Your task to perform on an android device: Go to location settings Image 0: 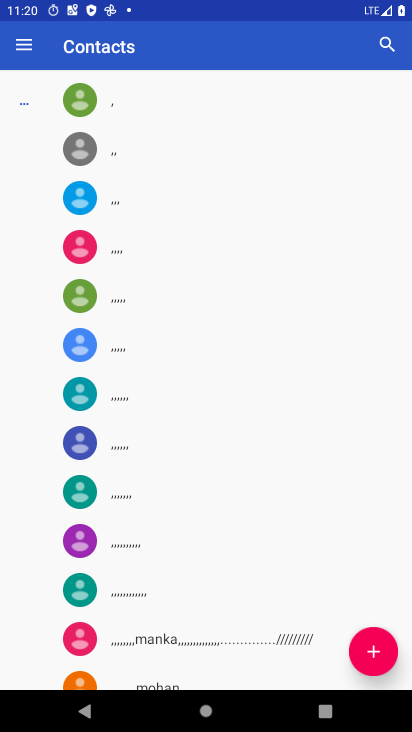
Step 0: press home button
Your task to perform on an android device: Go to location settings Image 1: 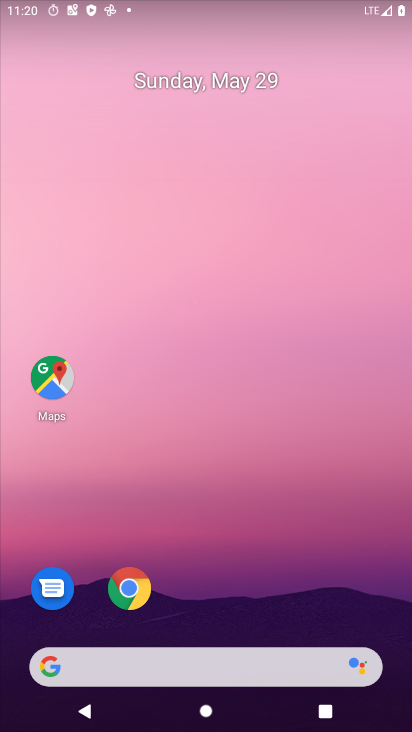
Step 1: drag from (239, 580) to (216, 188)
Your task to perform on an android device: Go to location settings Image 2: 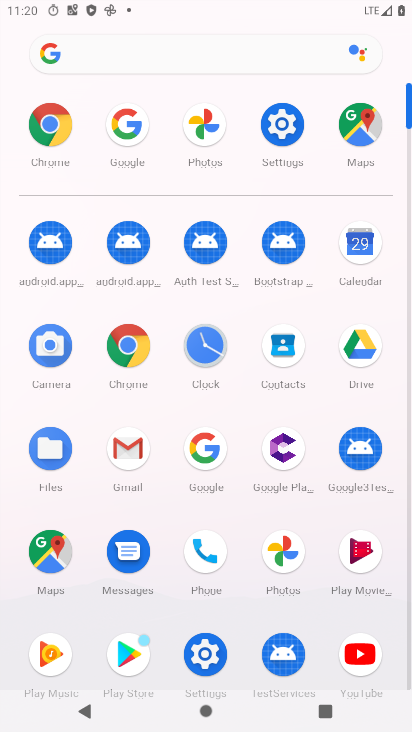
Step 2: click (204, 664)
Your task to perform on an android device: Go to location settings Image 3: 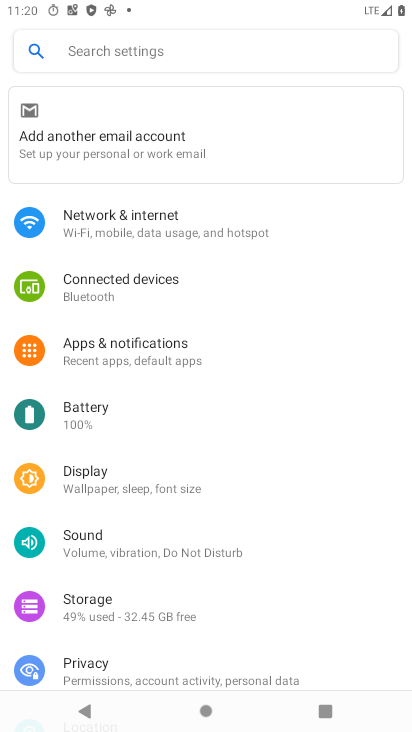
Step 3: drag from (141, 612) to (162, 332)
Your task to perform on an android device: Go to location settings Image 4: 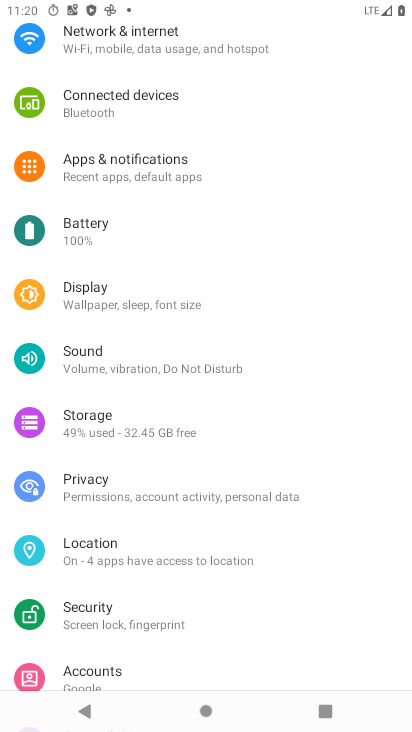
Step 4: click (152, 544)
Your task to perform on an android device: Go to location settings Image 5: 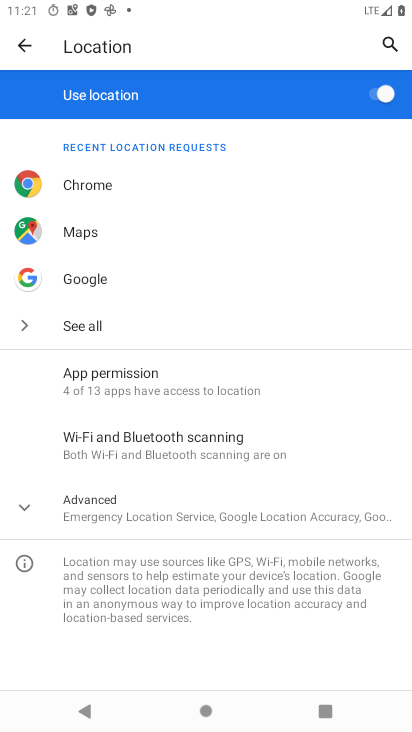
Step 5: drag from (190, 528) to (206, 190)
Your task to perform on an android device: Go to location settings Image 6: 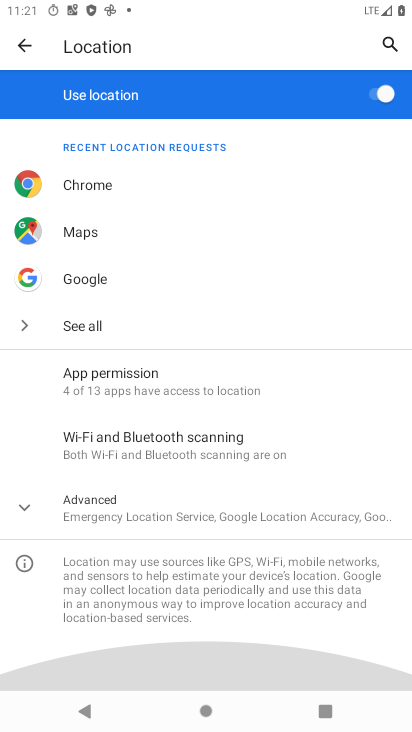
Step 6: drag from (209, 186) to (247, 588)
Your task to perform on an android device: Go to location settings Image 7: 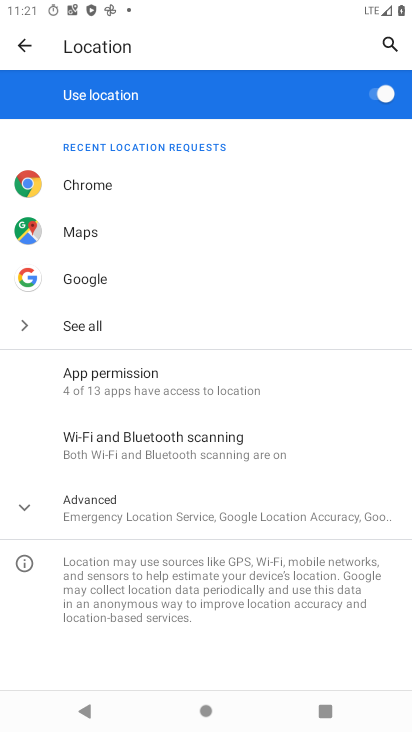
Step 7: click (164, 510)
Your task to perform on an android device: Go to location settings Image 8: 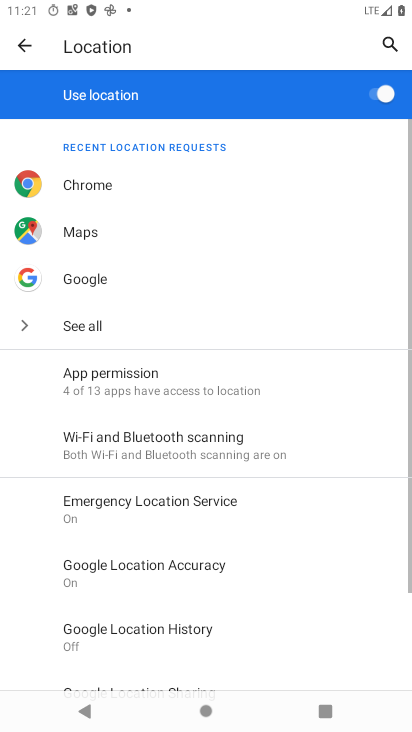
Step 8: task complete